Your task to perform on an android device: remove spam from my inbox in the gmail app Image 0: 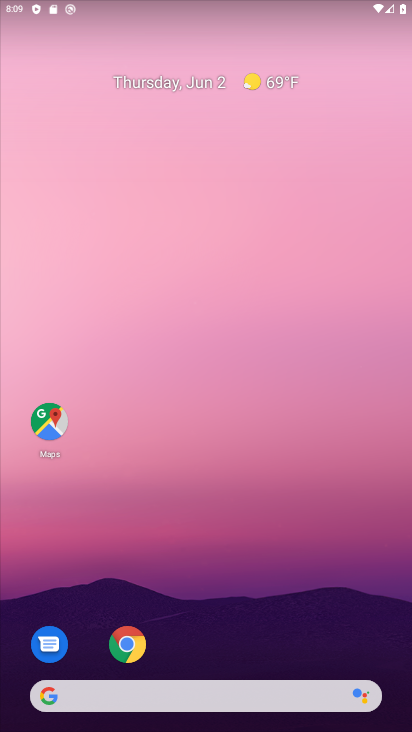
Step 0: drag from (201, 631) to (130, 63)
Your task to perform on an android device: remove spam from my inbox in the gmail app Image 1: 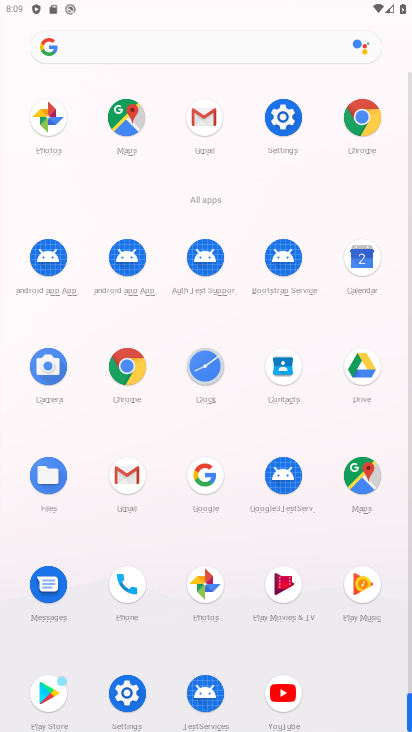
Step 1: click (122, 473)
Your task to perform on an android device: remove spam from my inbox in the gmail app Image 2: 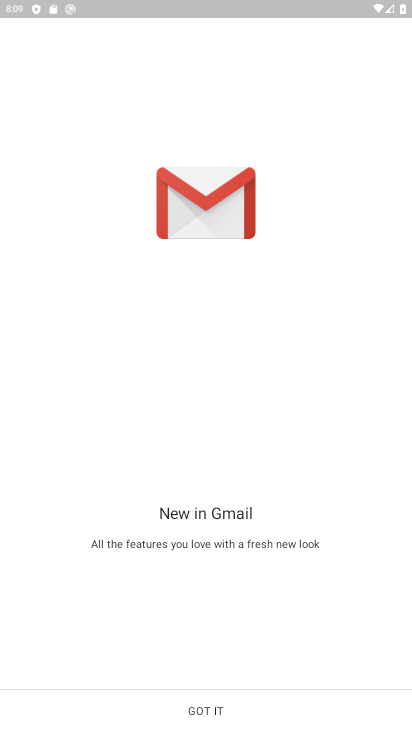
Step 2: click (220, 707)
Your task to perform on an android device: remove spam from my inbox in the gmail app Image 3: 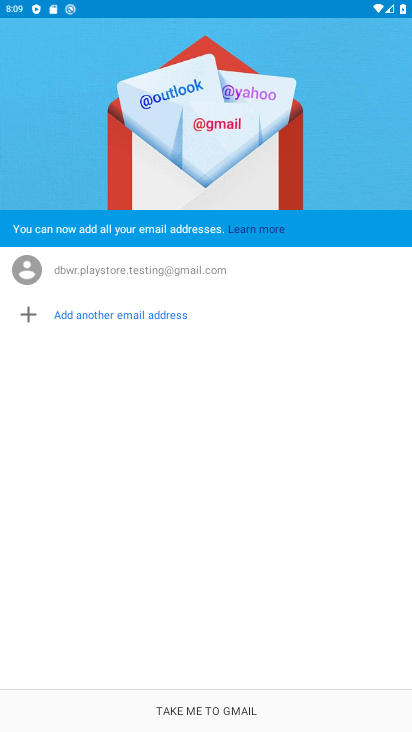
Step 3: click (159, 707)
Your task to perform on an android device: remove spam from my inbox in the gmail app Image 4: 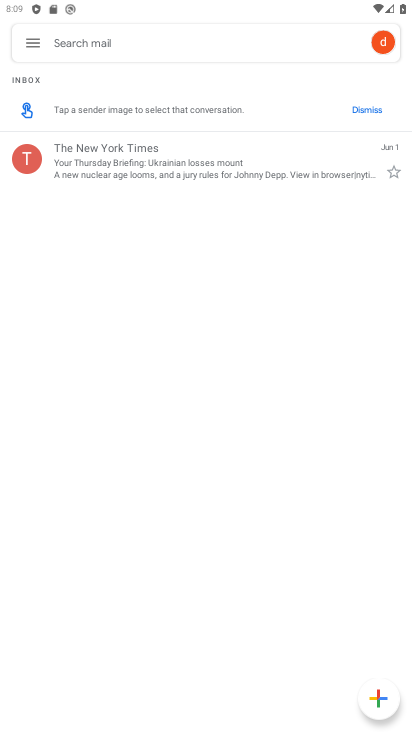
Step 4: click (25, 39)
Your task to perform on an android device: remove spam from my inbox in the gmail app Image 5: 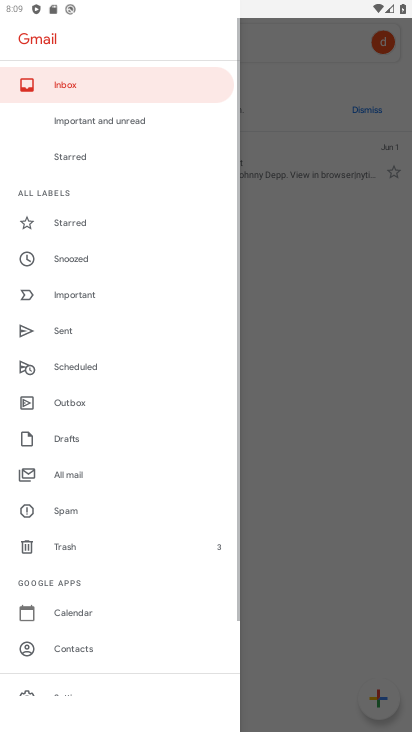
Step 5: click (81, 509)
Your task to perform on an android device: remove spam from my inbox in the gmail app Image 6: 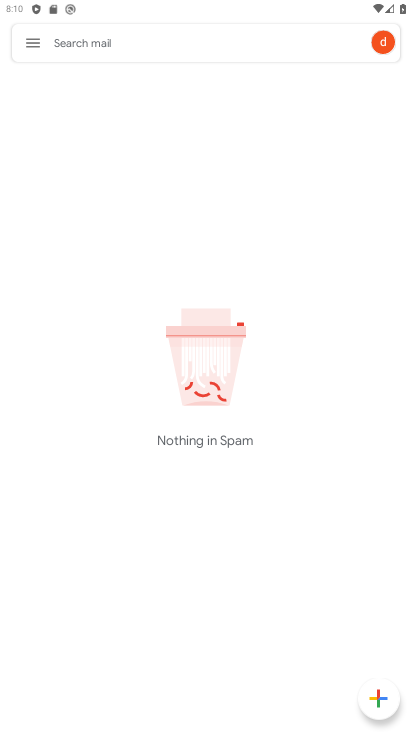
Step 6: task complete